Your task to perform on an android device: Open calendar and show me the second week of next month Image 0: 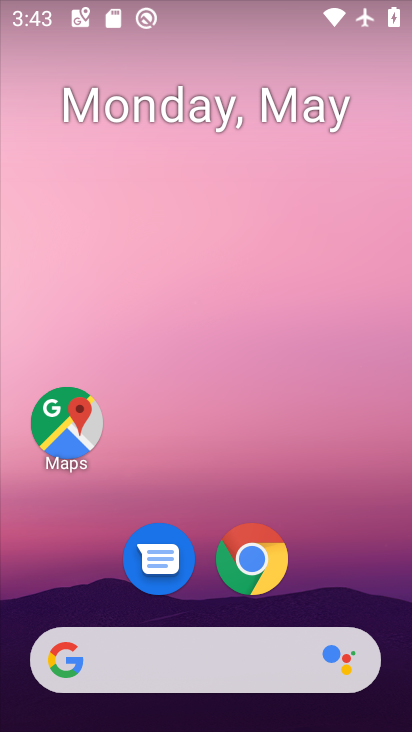
Step 0: drag from (317, 570) to (295, 139)
Your task to perform on an android device: Open calendar and show me the second week of next month Image 1: 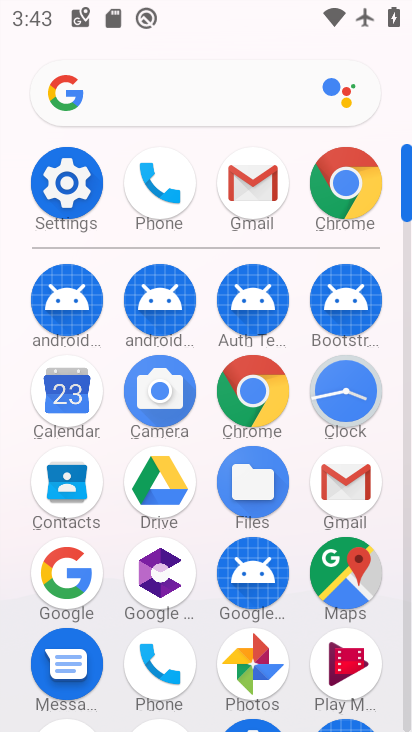
Step 1: click (54, 440)
Your task to perform on an android device: Open calendar and show me the second week of next month Image 2: 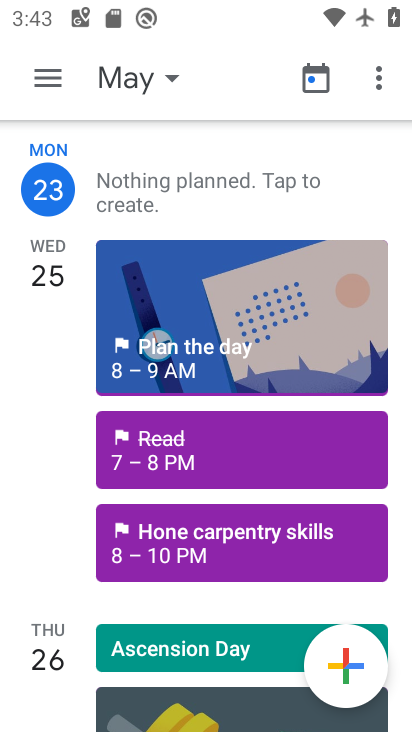
Step 2: click (113, 86)
Your task to perform on an android device: Open calendar and show me the second week of next month Image 3: 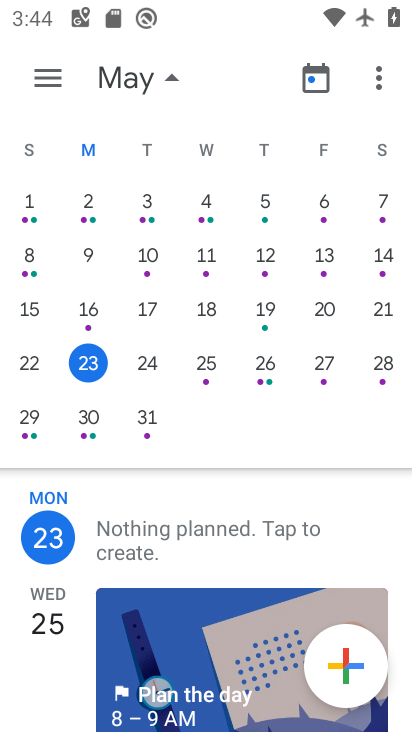
Step 3: drag from (306, 270) to (0, 244)
Your task to perform on an android device: Open calendar and show me the second week of next month Image 4: 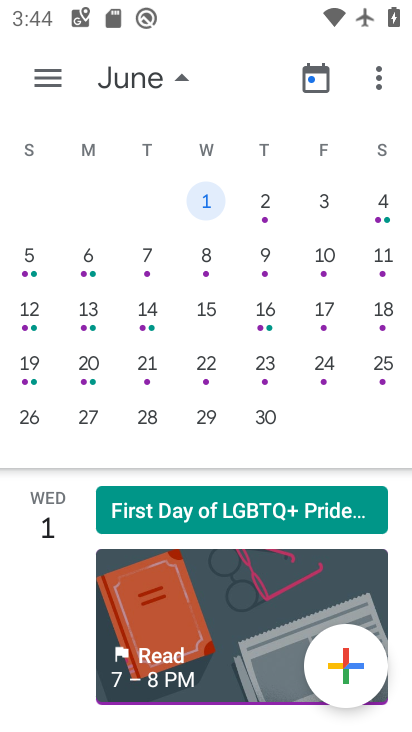
Step 4: click (24, 317)
Your task to perform on an android device: Open calendar and show me the second week of next month Image 5: 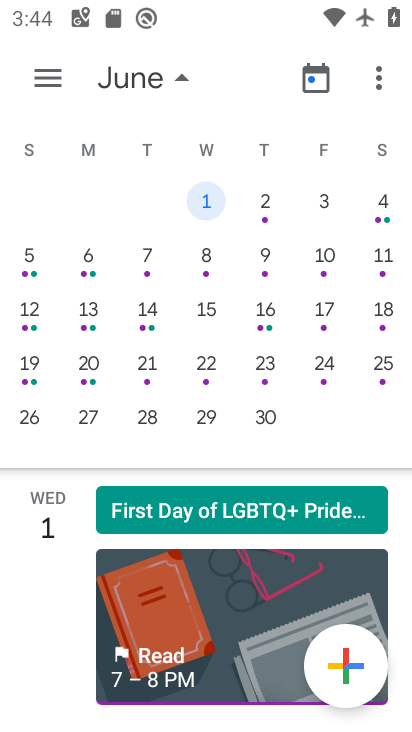
Step 5: click (51, 88)
Your task to perform on an android device: Open calendar and show me the second week of next month Image 6: 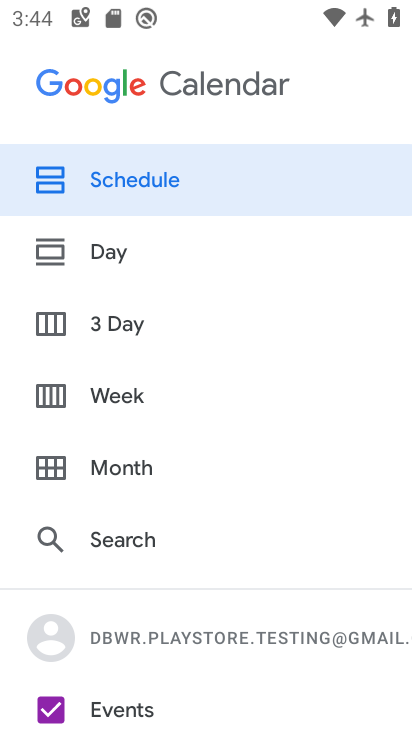
Step 6: click (106, 411)
Your task to perform on an android device: Open calendar and show me the second week of next month Image 7: 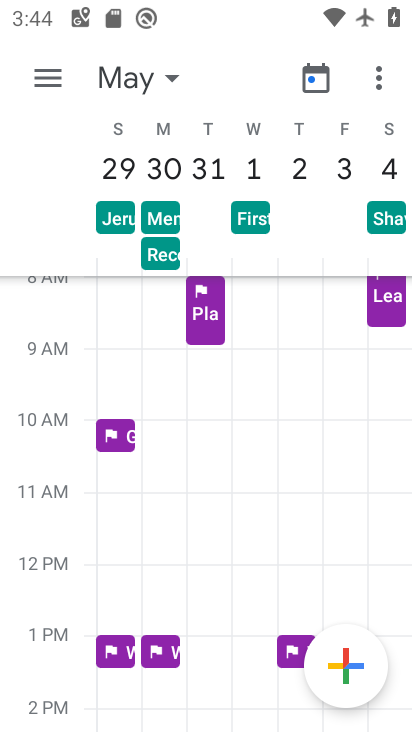
Step 7: click (118, 85)
Your task to perform on an android device: Open calendar and show me the second week of next month Image 8: 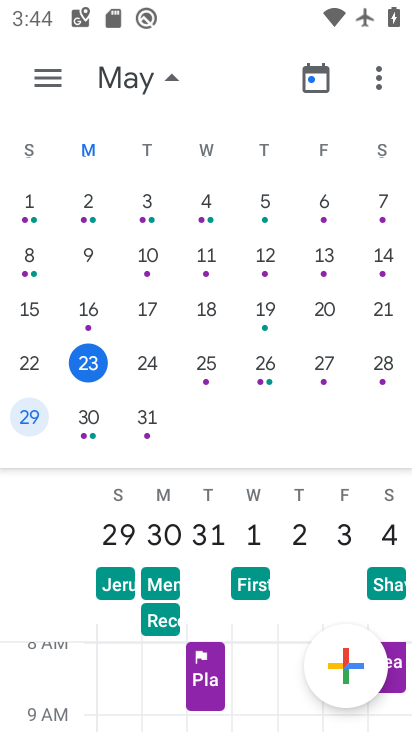
Step 8: drag from (294, 284) to (23, 278)
Your task to perform on an android device: Open calendar and show me the second week of next month Image 9: 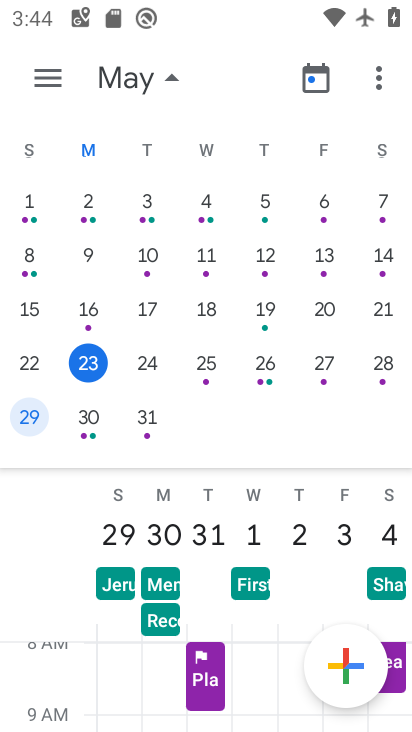
Step 9: drag from (360, 300) to (35, 236)
Your task to perform on an android device: Open calendar and show me the second week of next month Image 10: 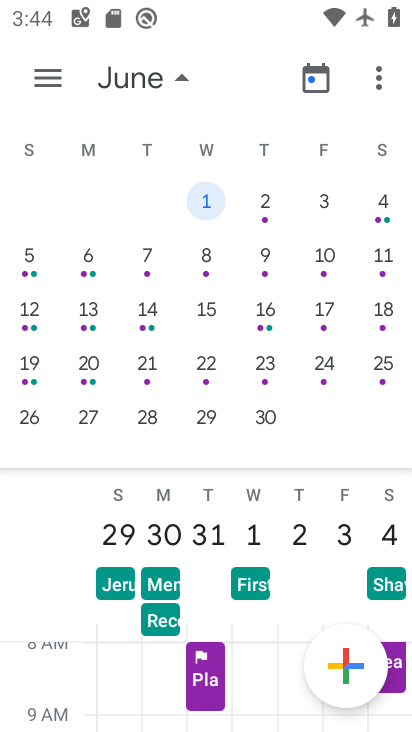
Step 10: click (26, 317)
Your task to perform on an android device: Open calendar and show me the second week of next month Image 11: 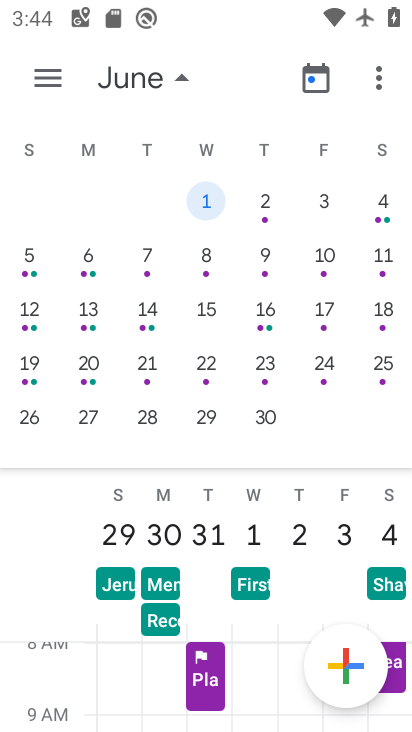
Step 11: click (37, 315)
Your task to perform on an android device: Open calendar and show me the second week of next month Image 12: 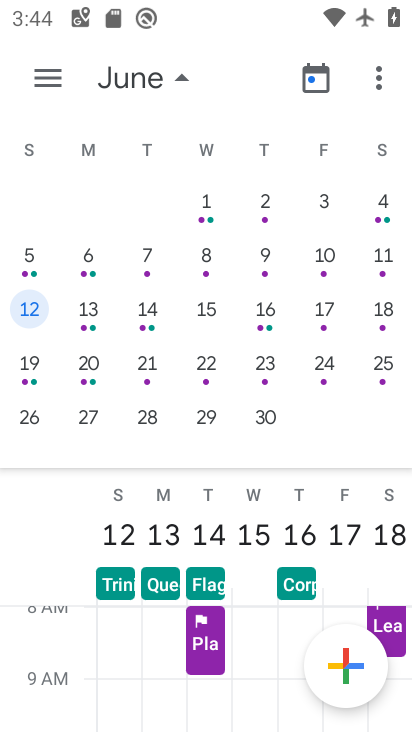
Step 12: task complete